Your task to perform on an android device: Add logitech g910 to the cart on amazon.com, then select checkout. Image 0: 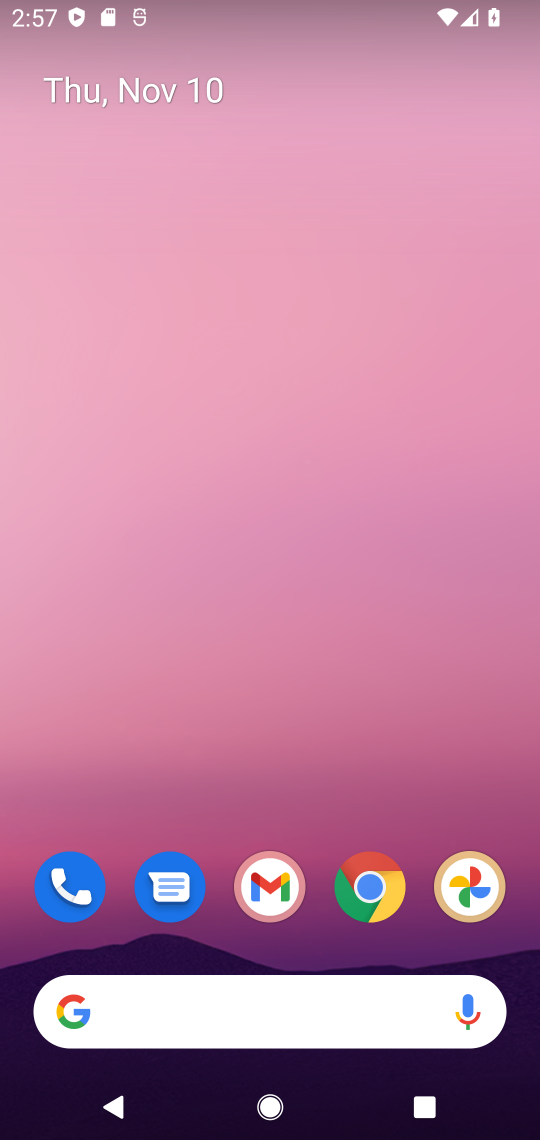
Step 0: drag from (325, 960) to (370, 143)
Your task to perform on an android device: Add logitech g910 to the cart on amazon.com, then select checkout. Image 1: 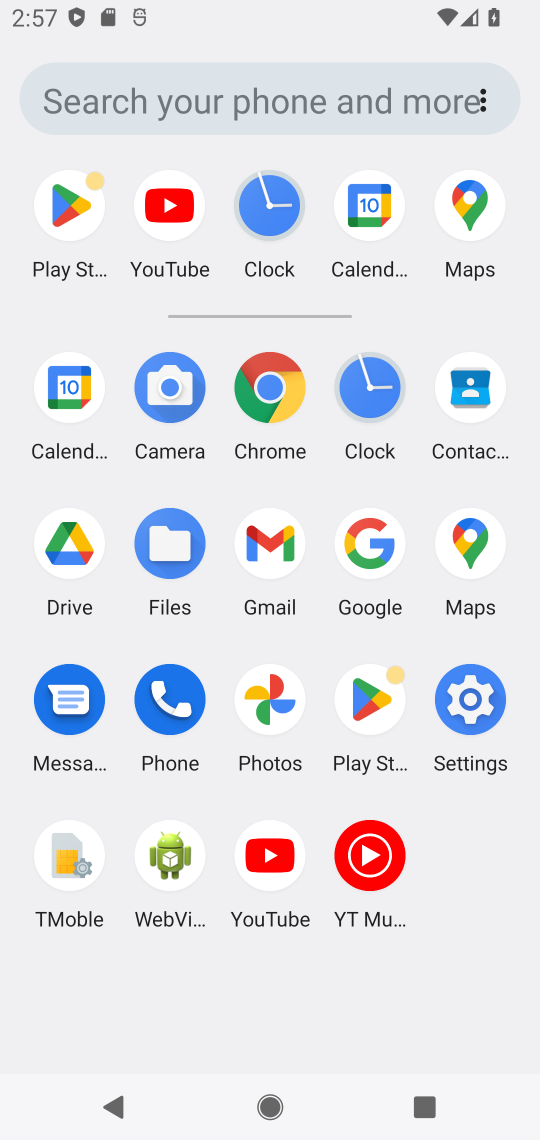
Step 1: click (267, 398)
Your task to perform on an android device: Add logitech g910 to the cart on amazon.com, then select checkout. Image 2: 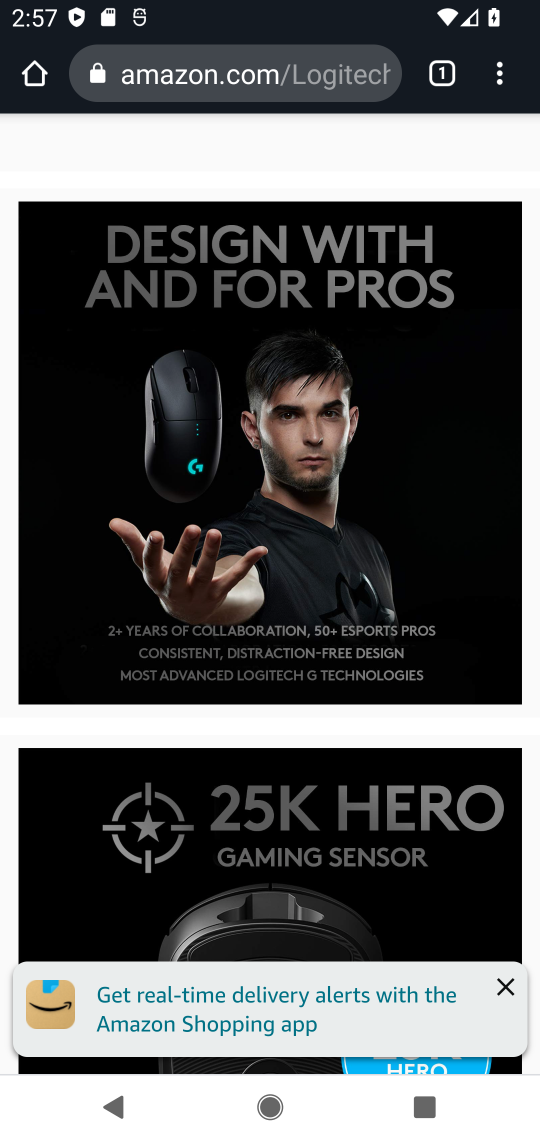
Step 2: click (283, 86)
Your task to perform on an android device: Add logitech g910 to the cart on amazon.com, then select checkout. Image 3: 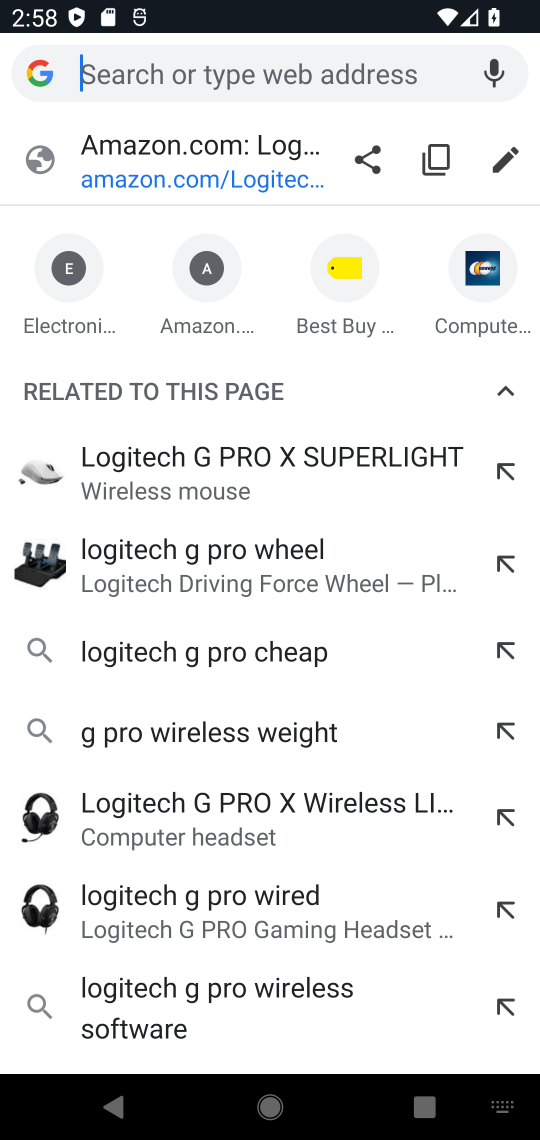
Step 3: type "amazon.com"
Your task to perform on an android device: Add logitech g910 to the cart on amazon.com, then select checkout. Image 4: 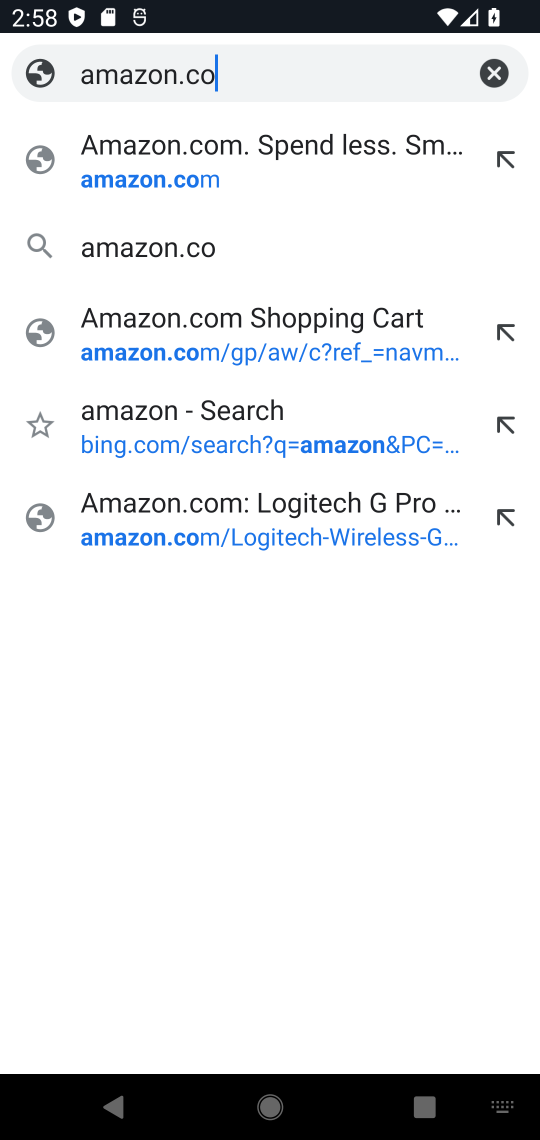
Step 4: press enter
Your task to perform on an android device: Add logitech g910 to the cart on amazon.com, then select checkout. Image 5: 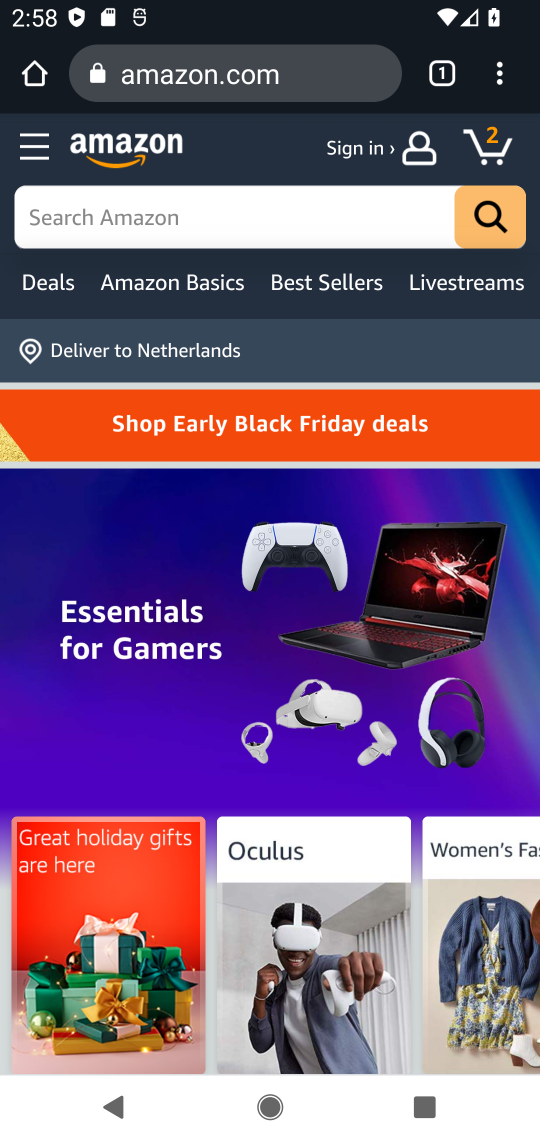
Step 5: click (294, 213)
Your task to perform on an android device: Add logitech g910 to the cart on amazon.com, then select checkout. Image 6: 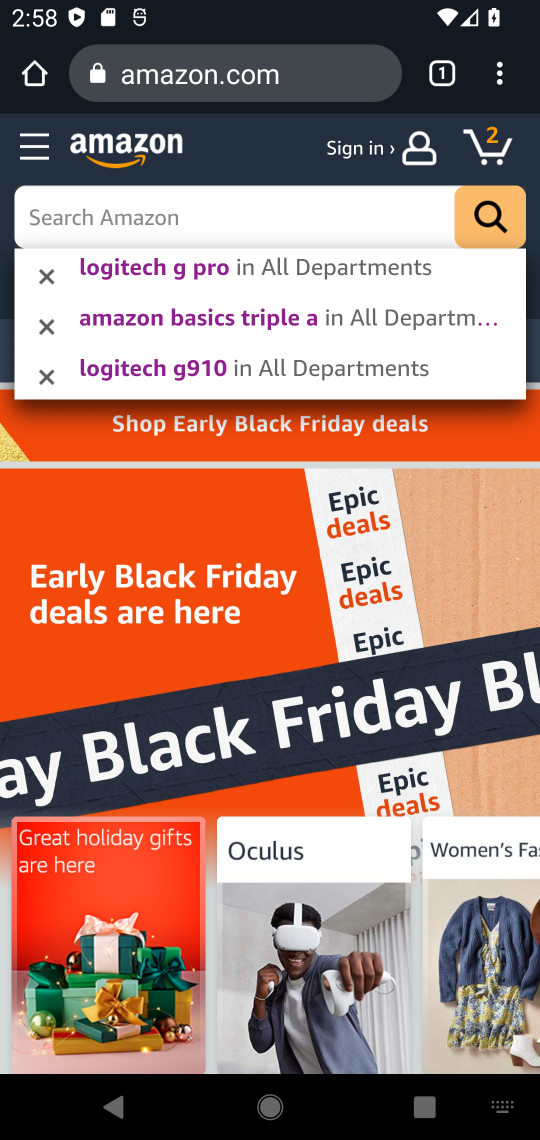
Step 6: type "logitech g910"
Your task to perform on an android device: Add logitech g910 to the cart on amazon.com, then select checkout. Image 7: 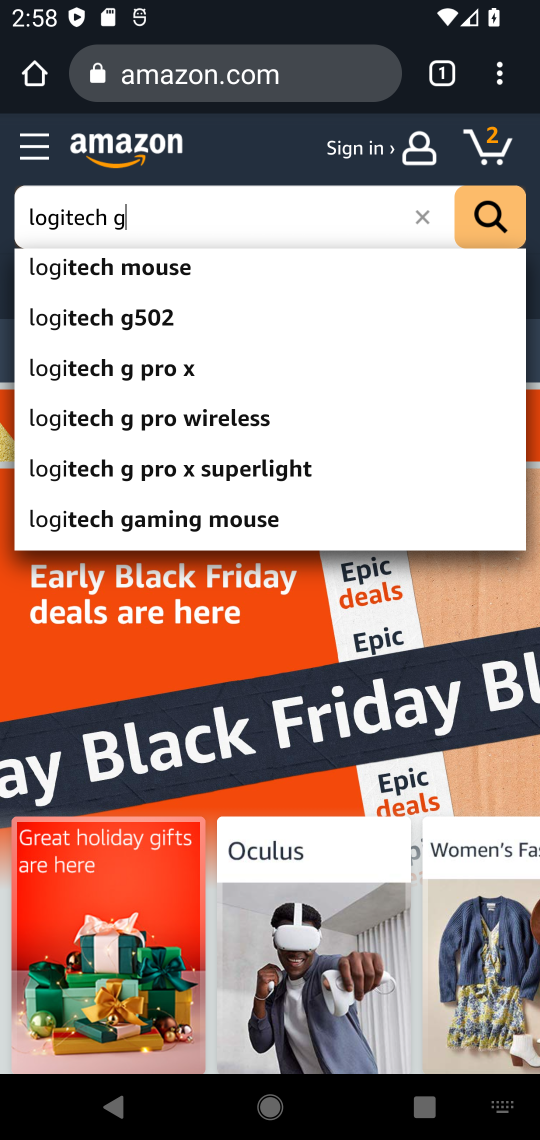
Step 7: press enter
Your task to perform on an android device: Add logitech g910 to the cart on amazon.com, then select checkout. Image 8: 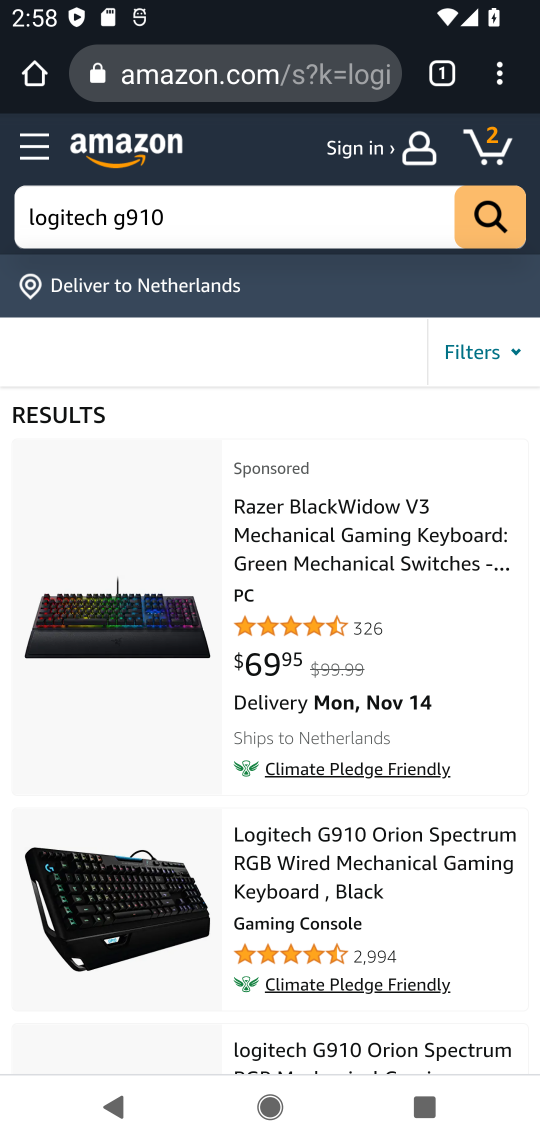
Step 8: click (339, 853)
Your task to perform on an android device: Add logitech g910 to the cart on amazon.com, then select checkout. Image 9: 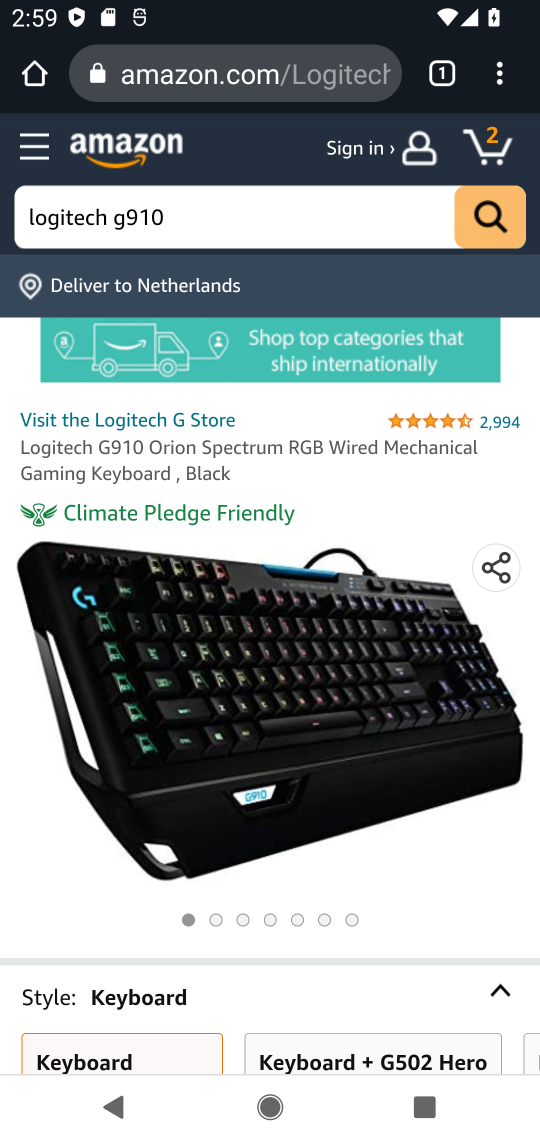
Step 9: drag from (313, 888) to (274, 182)
Your task to perform on an android device: Add logitech g910 to the cart on amazon.com, then select checkout. Image 10: 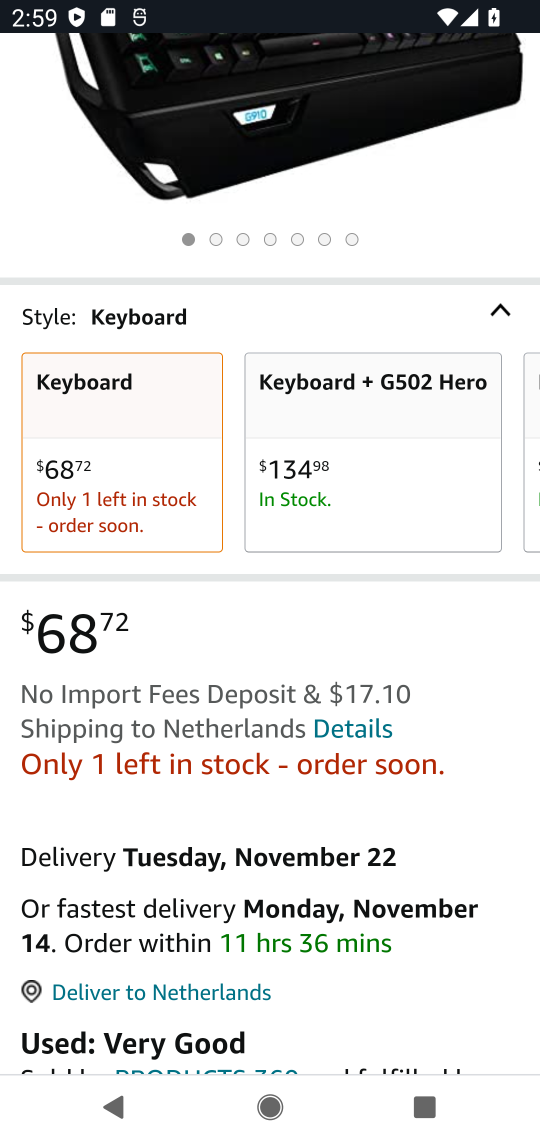
Step 10: drag from (281, 928) to (471, 362)
Your task to perform on an android device: Add logitech g910 to the cart on amazon.com, then select checkout. Image 11: 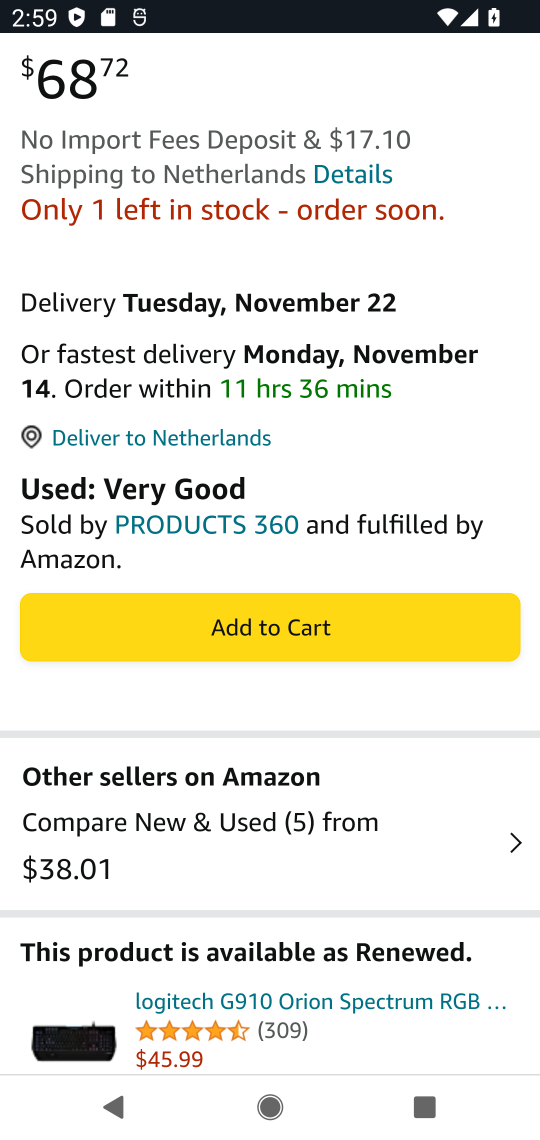
Step 11: click (314, 640)
Your task to perform on an android device: Add logitech g910 to the cart on amazon.com, then select checkout. Image 12: 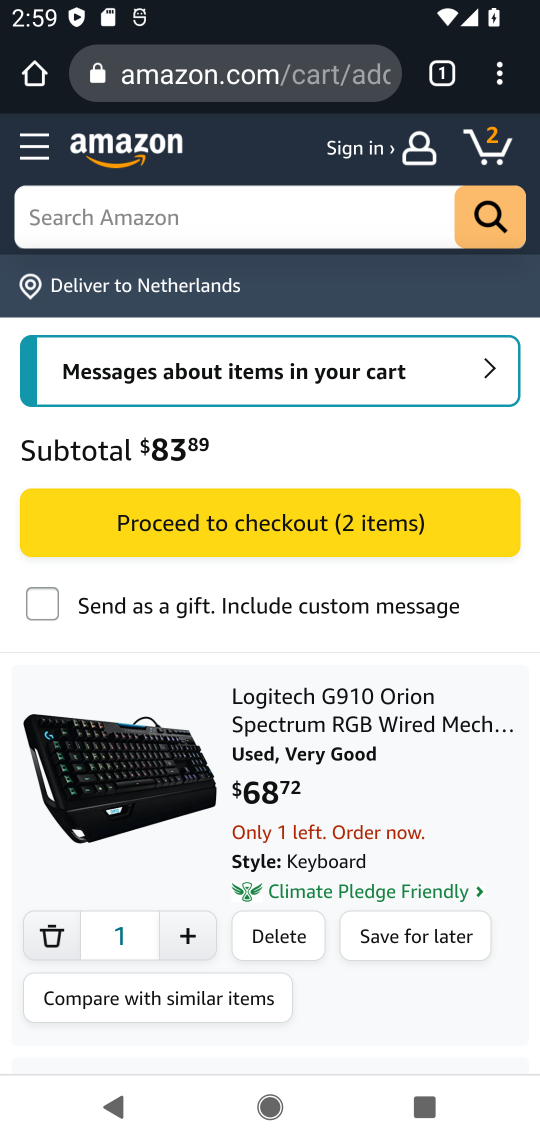
Step 12: click (355, 512)
Your task to perform on an android device: Add logitech g910 to the cart on amazon.com, then select checkout. Image 13: 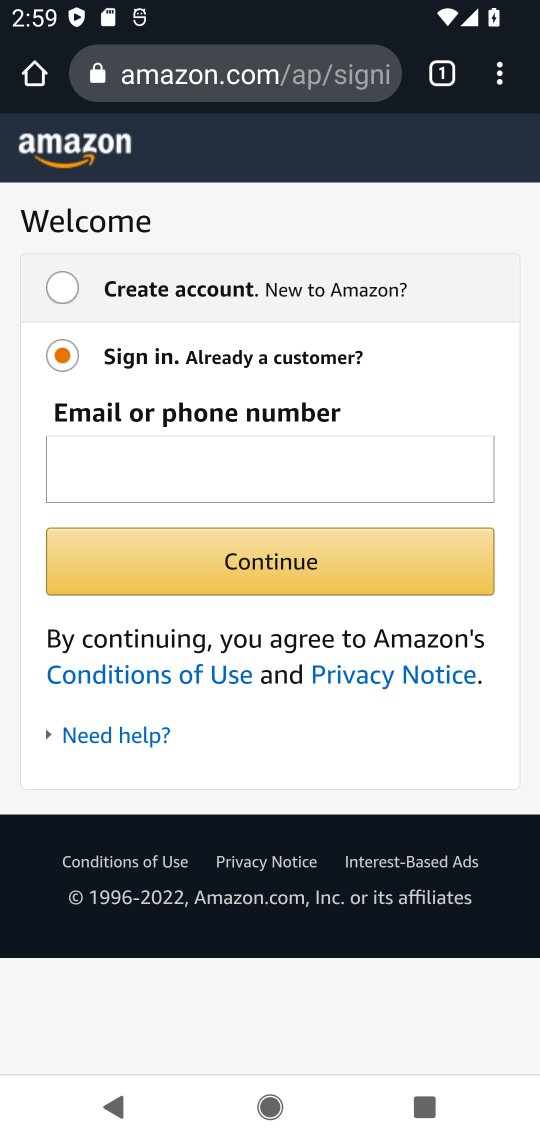
Step 13: task complete